Your task to perform on an android device: Open my contact list Image 0: 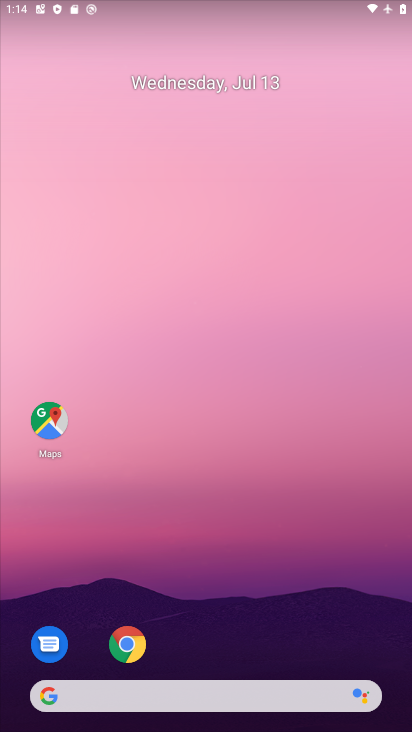
Step 0: drag from (312, 596) to (323, 131)
Your task to perform on an android device: Open my contact list Image 1: 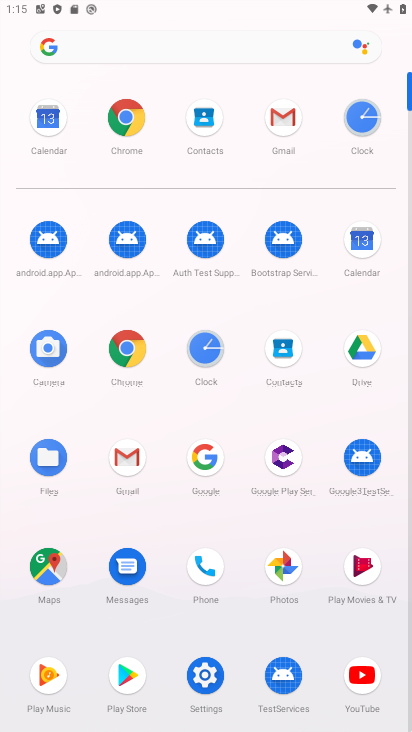
Step 1: click (288, 348)
Your task to perform on an android device: Open my contact list Image 2: 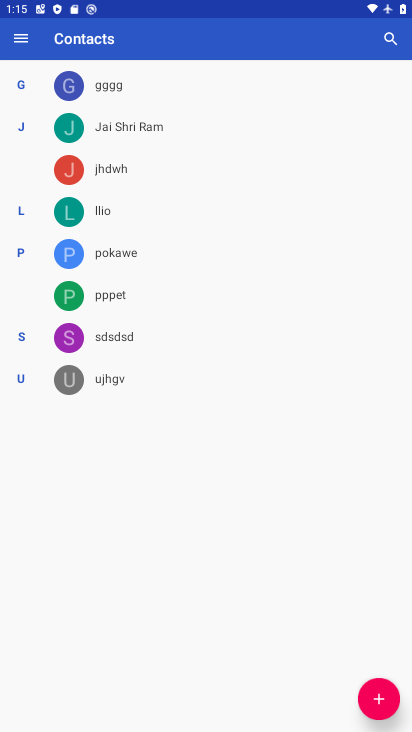
Step 2: task complete